Your task to perform on an android device: turn on notifications settings in the gmail app Image 0: 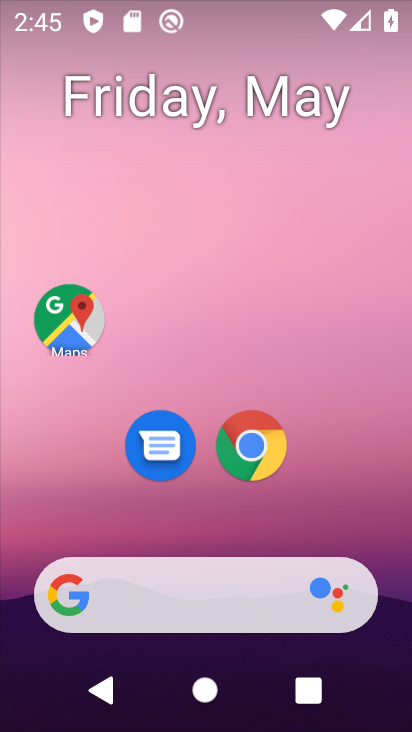
Step 0: drag from (246, 495) to (95, 61)
Your task to perform on an android device: turn on notifications settings in the gmail app Image 1: 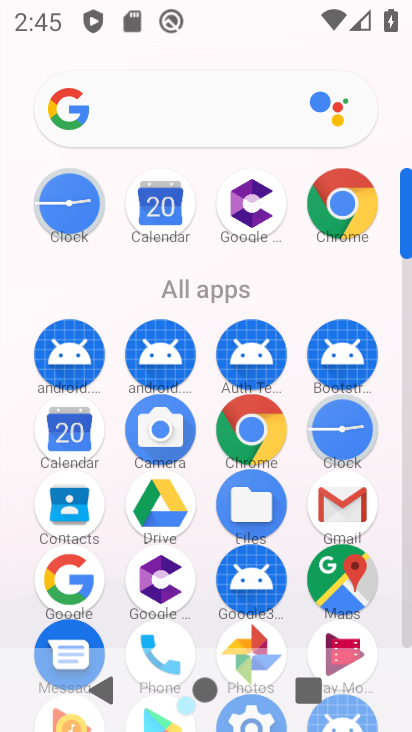
Step 1: click (349, 517)
Your task to perform on an android device: turn on notifications settings in the gmail app Image 2: 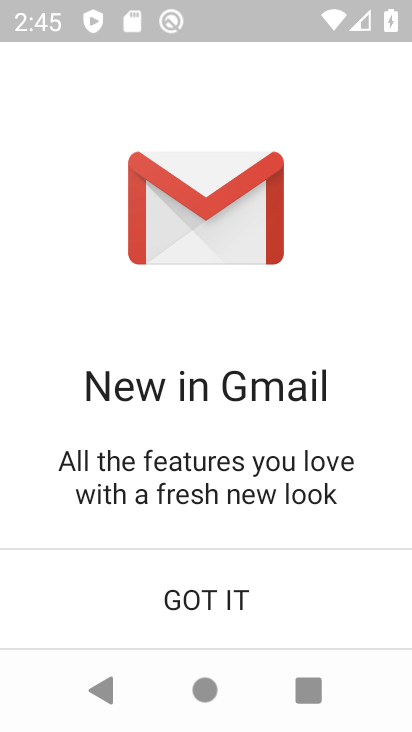
Step 2: click (270, 609)
Your task to perform on an android device: turn on notifications settings in the gmail app Image 3: 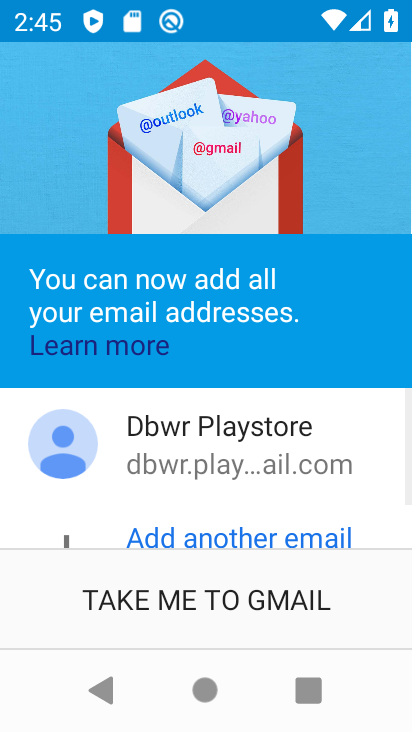
Step 3: click (270, 609)
Your task to perform on an android device: turn on notifications settings in the gmail app Image 4: 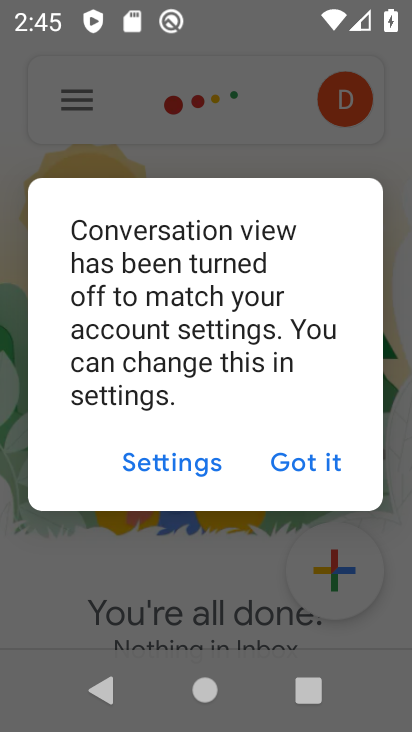
Step 4: click (300, 468)
Your task to perform on an android device: turn on notifications settings in the gmail app Image 5: 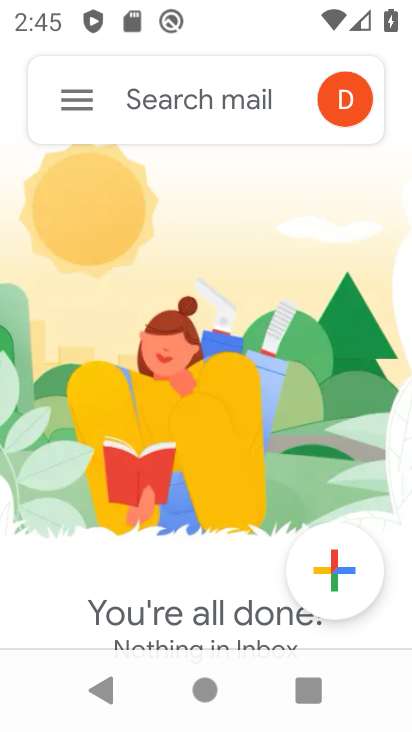
Step 5: click (76, 113)
Your task to perform on an android device: turn on notifications settings in the gmail app Image 6: 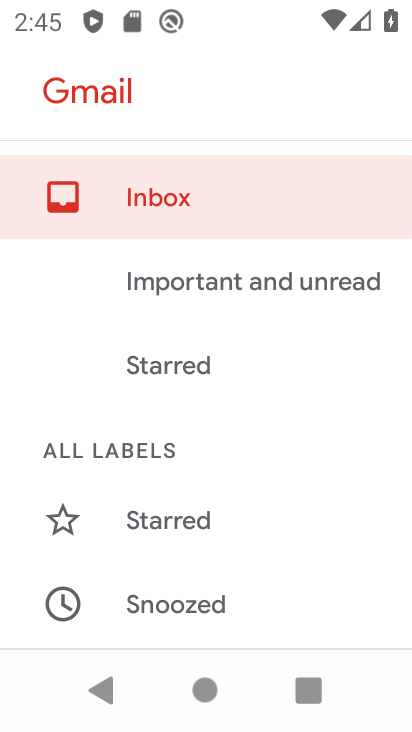
Step 6: drag from (212, 542) to (172, 144)
Your task to perform on an android device: turn on notifications settings in the gmail app Image 7: 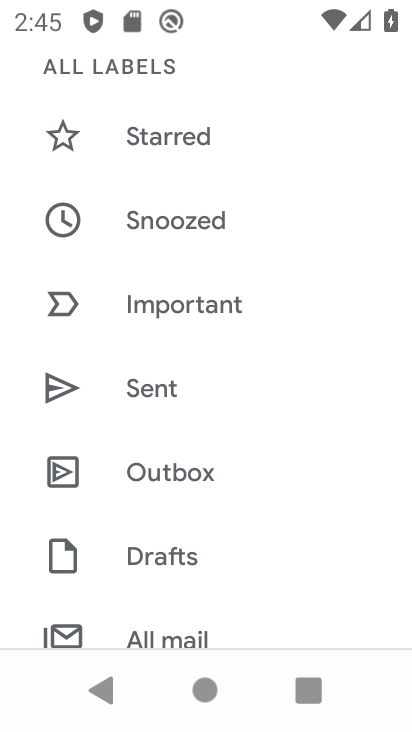
Step 7: drag from (163, 524) to (157, 231)
Your task to perform on an android device: turn on notifications settings in the gmail app Image 8: 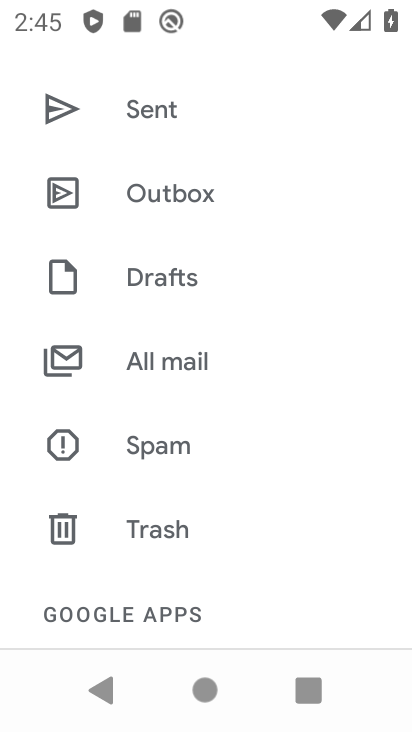
Step 8: drag from (146, 575) to (174, 237)
Your task to perform on an android device: turn on notifications settings in the gmail app Image 9: 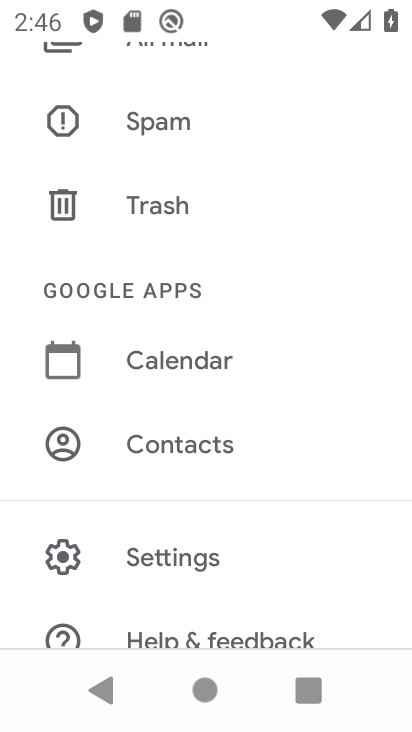
Step 9: click (171, 566)
Your task to perform on an android device: turn on notifications settings in the gmail app Image 10: 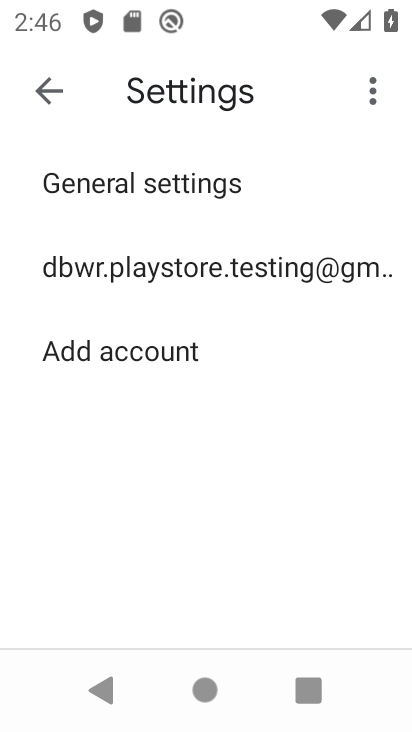
Step 10: click (224, 195)
Your task to perform on an android device: turn on notifications settings in the gmail app Image 11: 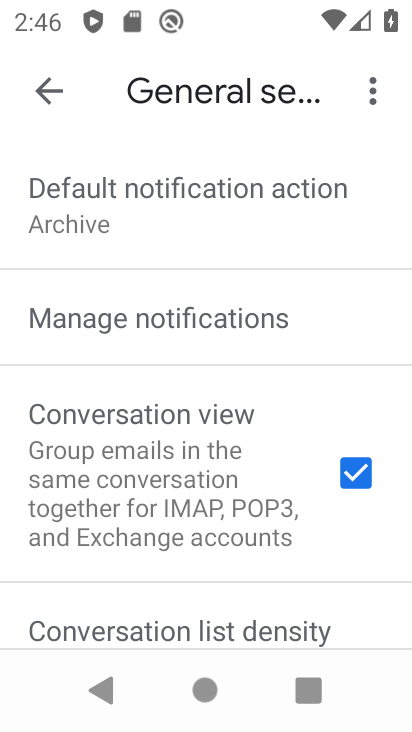
Step 11: click (218, 321)
Your task to perform on an android device: turn on notifications settings in the gmail app Image 12: 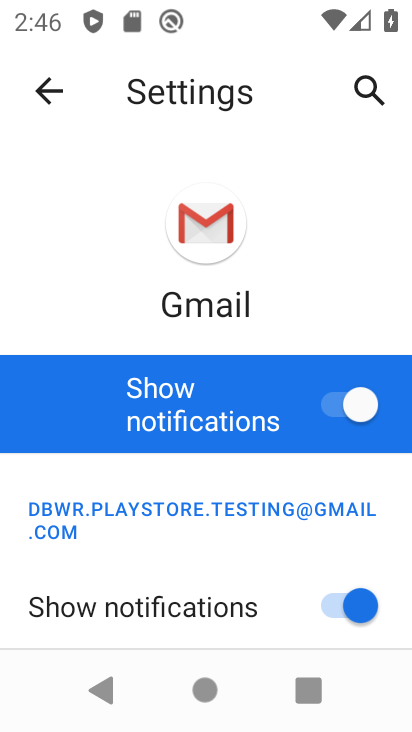
Step 12: task complete